Your task to perform on an android device: toggle priority inbox in the gmail app Image 0: 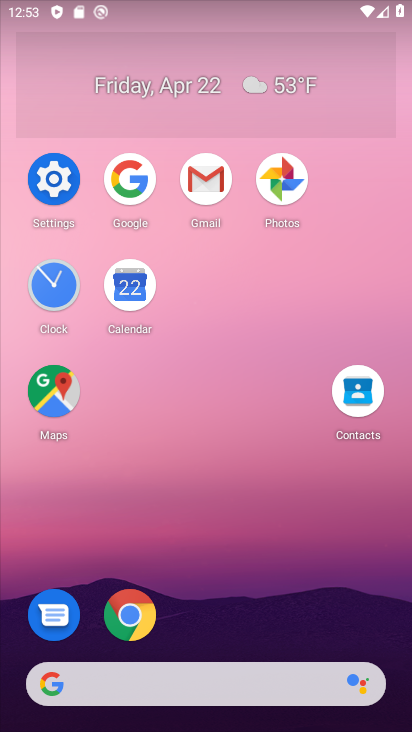
Step 0: click (199, 184)
Your task to perform on an android device: toggle priority inbox in the gmail app Image 1: 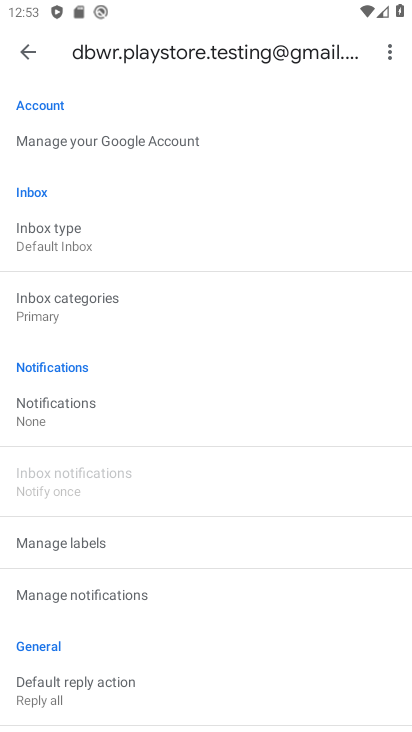
Step 1: click (77, 242)
Your task to perform on an android device: toggle priority inbox in the gmail app Image 2: 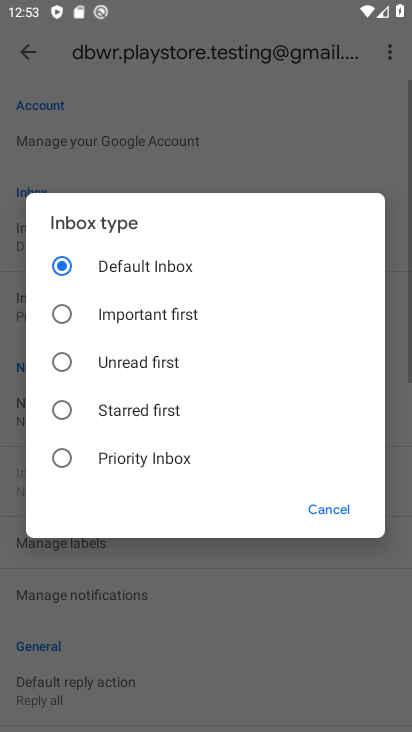
Step 2: click (140, 464)
Your task to perform on an android device: toggle priority inbox in the gmail app Image 3: 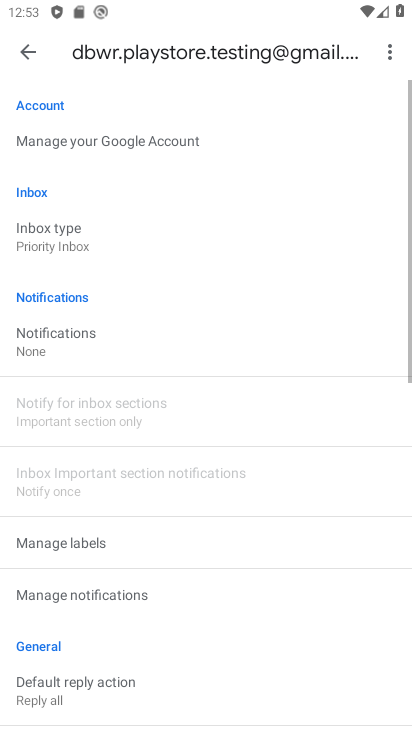
Step 3: task complete